Your task to perform on an android device: turn on data saver in the chrome app Image 0: 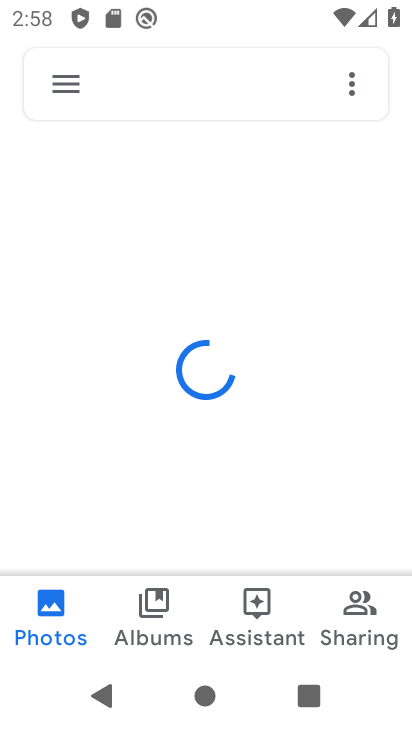
Step 0: press home button
Your task to perform on an android device: turn on data saver in the chrome app Image 1: 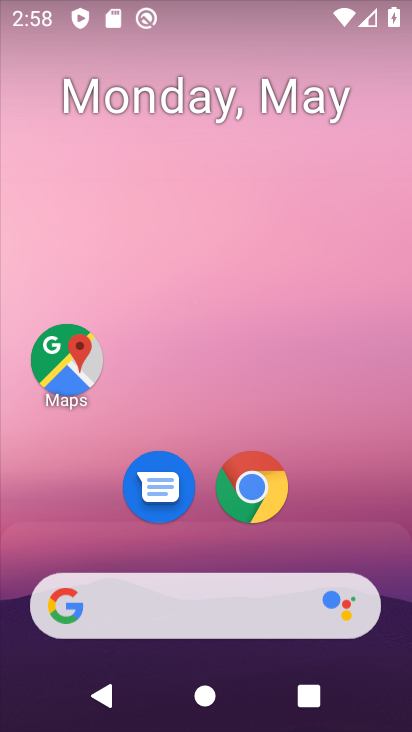
Step 1: drag from (230, 548) to (215, 253)
Your task to perform on an android device: turn on data saver in the chrome app Image 2: 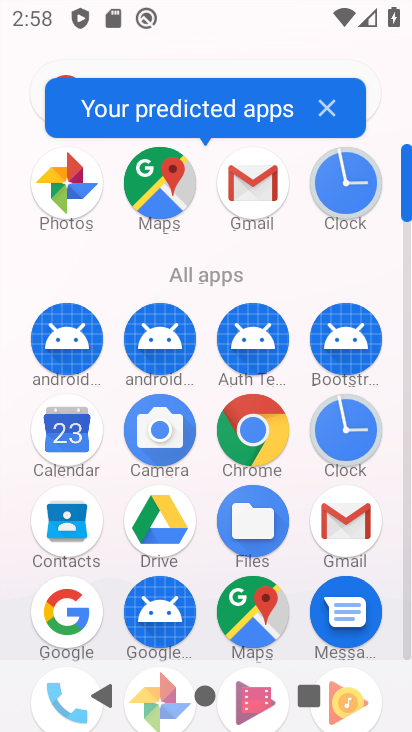
Step 2: click (244, 434)
Your task to perform on an android device: turn on data saver in the chrome app Image 3: 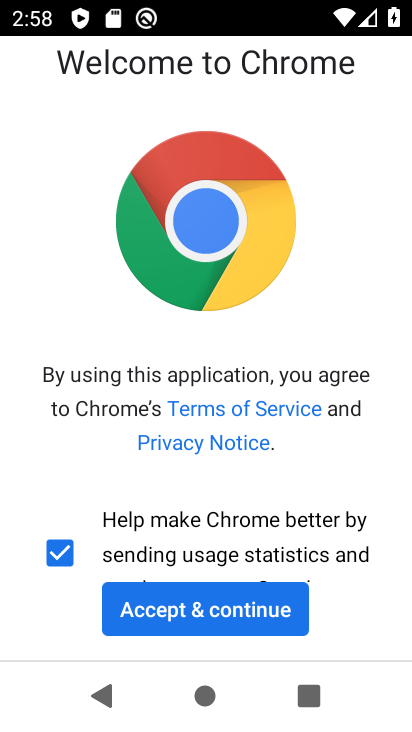
Step 3: click (230, 614)
Your task to perform on an android device: turn on data saver in the chrome app Image 4: 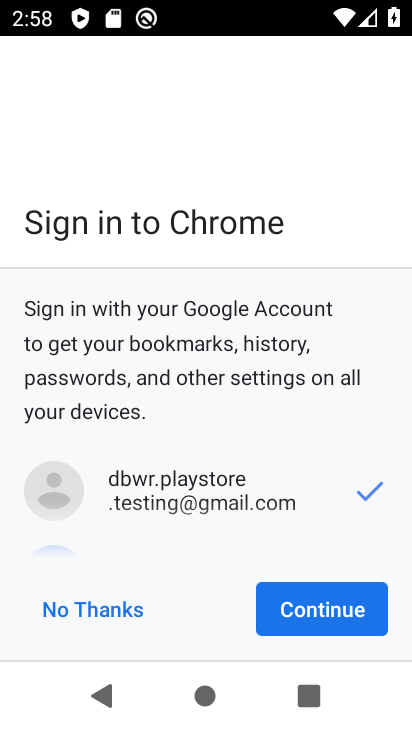
Step 4: click (288, 614)
Your task to perform on an android device: turn on data saver in the chrome app Image 5: 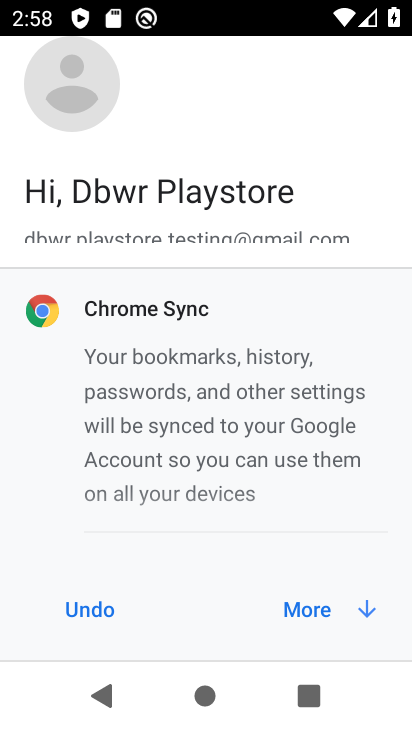
Step 5: click (288, 614)
Your task to perform on an android device: turn on data saver in the chrome app Image 6: 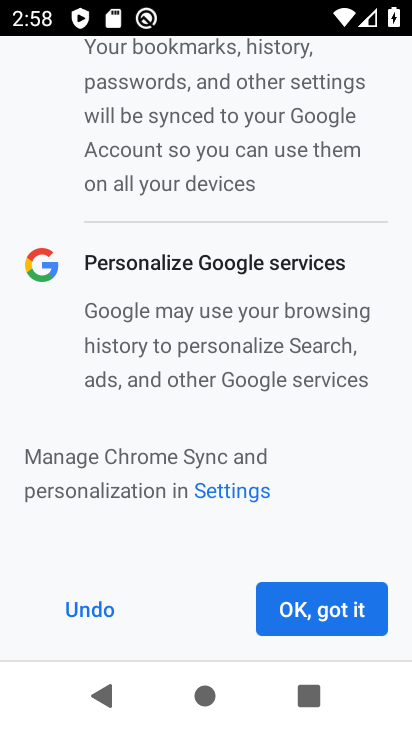
Step 6: click (349, 603)
Your task to perform on an android device: turn on data saver in the chrome app Image 7: 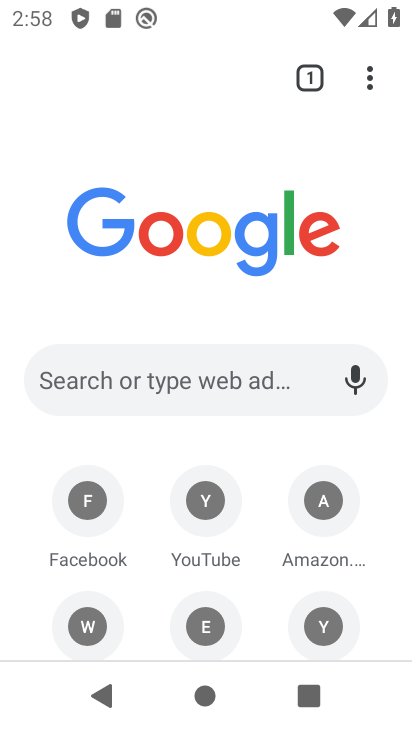
Step 7: click (370, 77)
Your task to perform on an android device: turn on data saver in the chrome app Image 8: 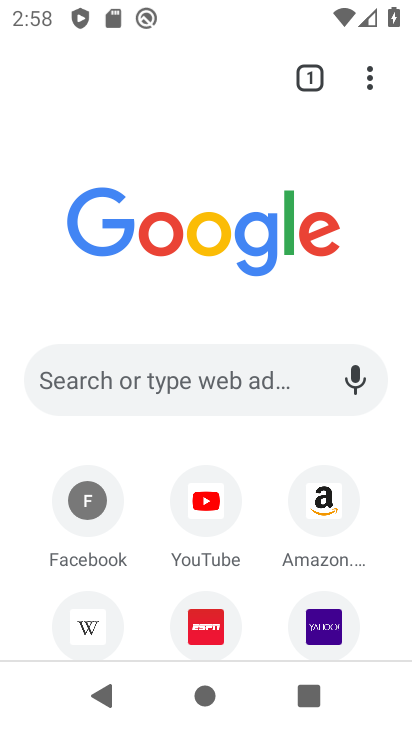
Step 8: click (370, 77)
Your task to perform on an android device: turn on data saver in the chrome app Image 9: 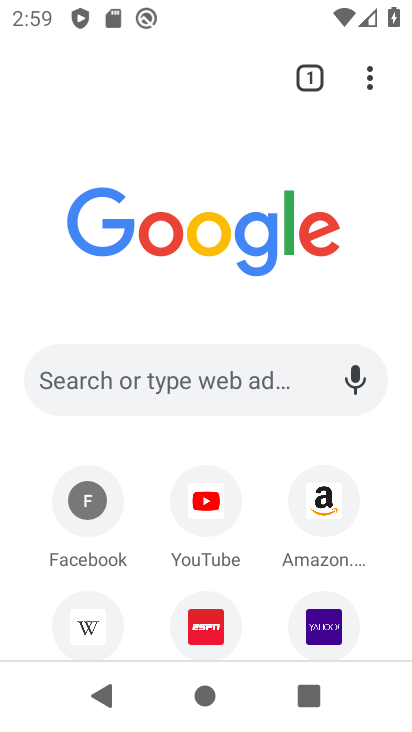
Step 9: click (376, 77)
Your task to perform on an android device: turn on data saver in the chrome app Image 10: 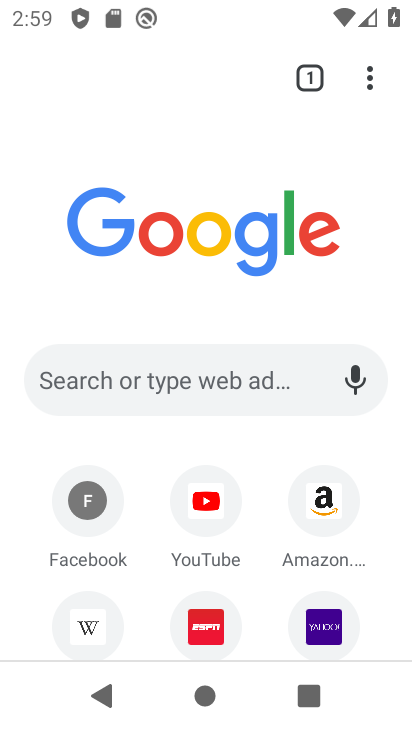
Step 10: click (376, 77)
Your task to perform on an android device: turn on data saver in the chrome app Image 11: 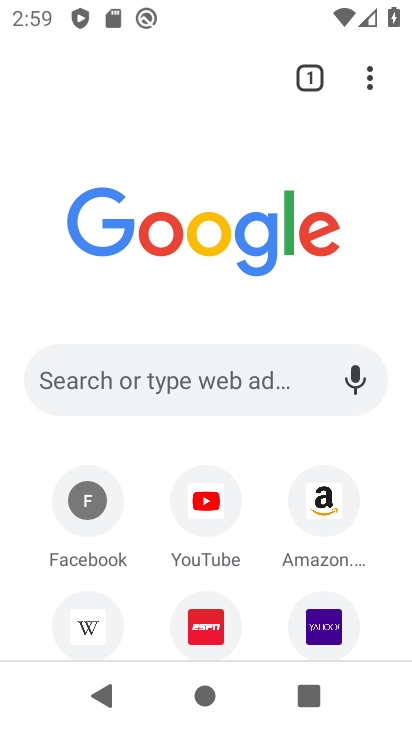
Step 11: click (365, 82)
Your task to perform on an android device: turn on data saver in the chrome app Image 12: 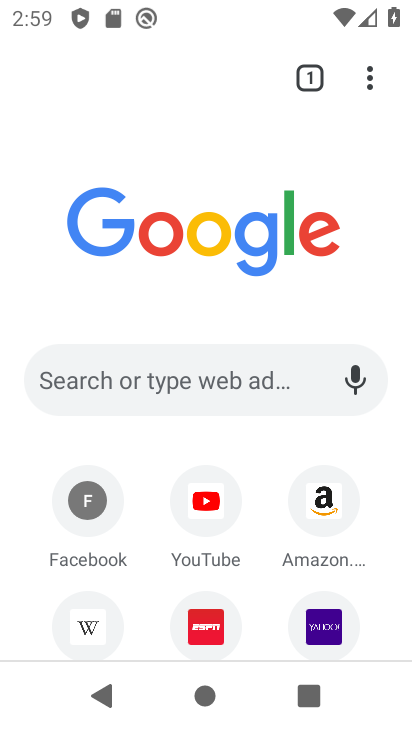
Step 12: click (365, 82)
Your task to perform on an android device: turn on data saver in the chrome app Image 13: 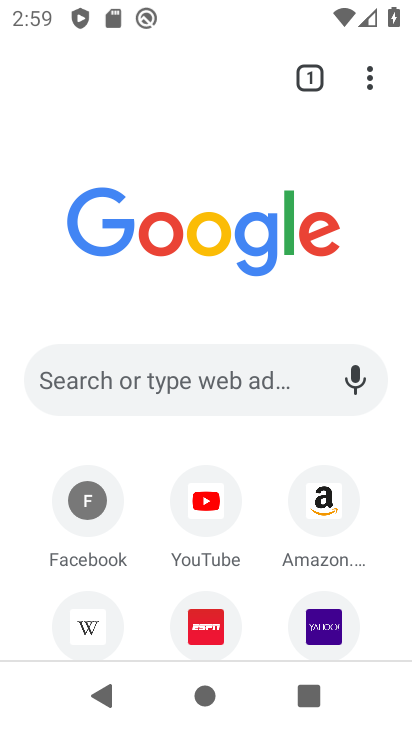
Step 13: click (370, 81)
Your task to perform on an android device: turn on data saver in the chrome app Image 14: 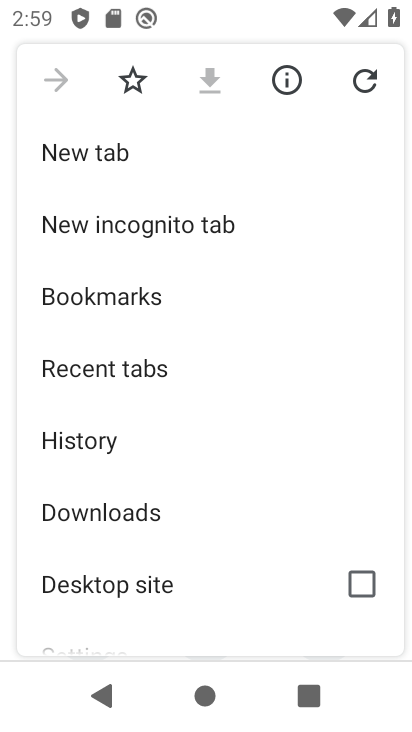
Step 14: drag from (169, 607) to (155, 193)
Your task to perform on an android device: turn on data saver in the chrome app Image 15: 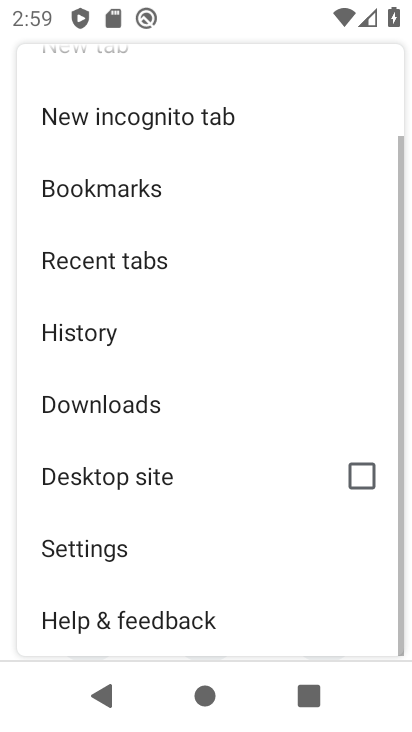
Step 15: click (91, 559)
Your task to perform on an android device: turn on data saver in the chrome app Image 16: 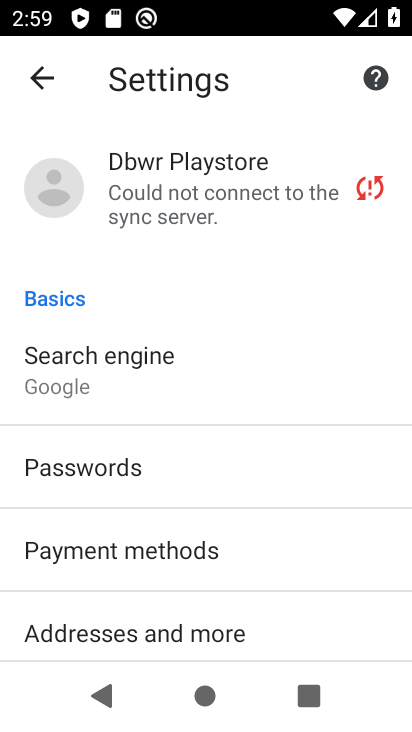
Step 16: drag from (145, 613) to (145, 261)
Your task to perform on an android device: turn on data saver in the chrome app Image 17: 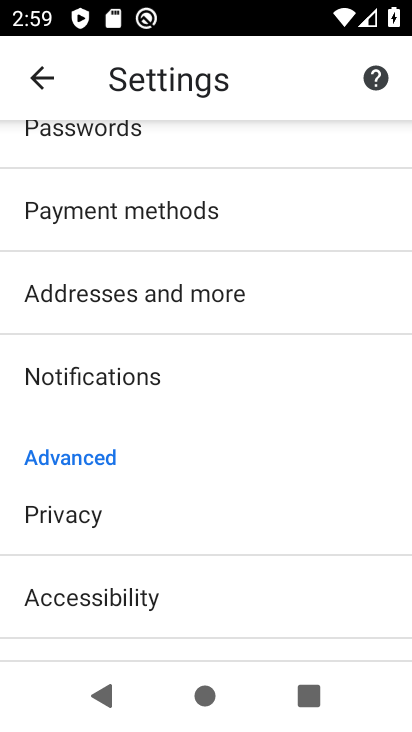
Step 17: drag from (124, 592) to (103, 371)
Your task to perform on an android device: turn on data saver in the chrome app Image 18: 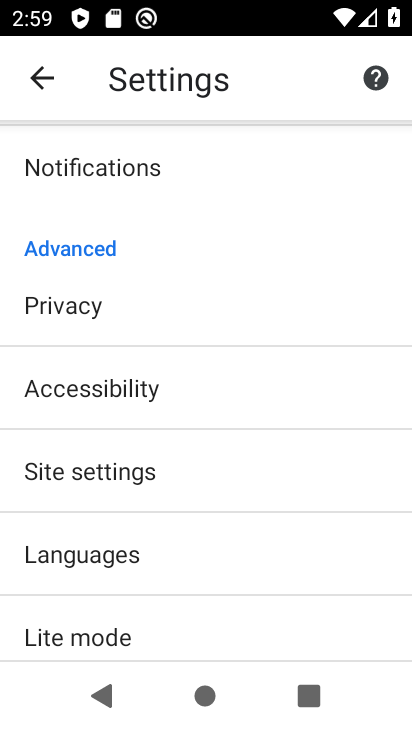
Step 18: click (104, 471)
Your task to perform on an android device: turn on data saver in the chrome app Image 19: 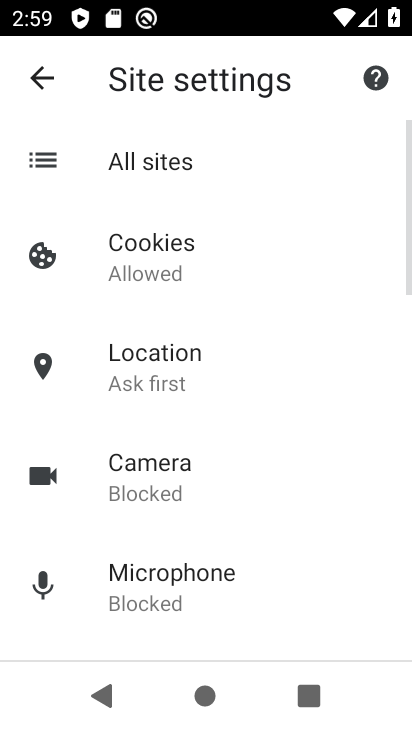
Step 19: click (50, 72)
Your task to perform on an android device: turn on data saver in the chrome app Image 20: 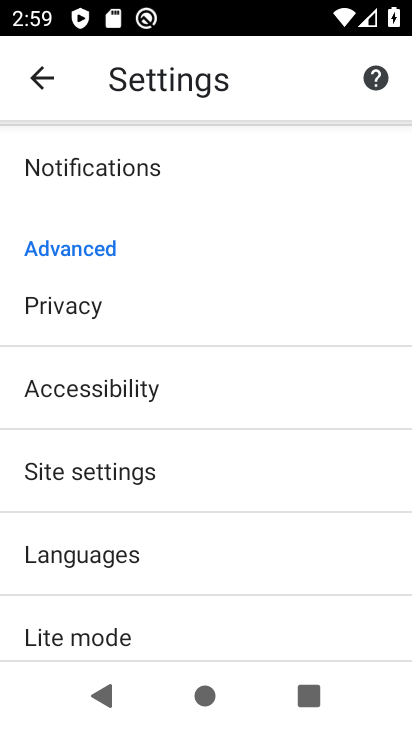
Step 20: click (128, 635)
Your task to perform on an android device: turn on data saver in the chrome app Image 21: 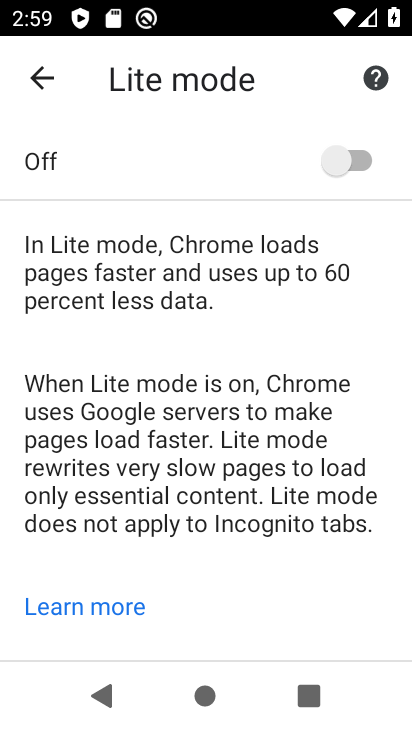
Step 21: click (350, 164)
Your task to perform on an android device: turn on data saver in the chrome app Image 22: 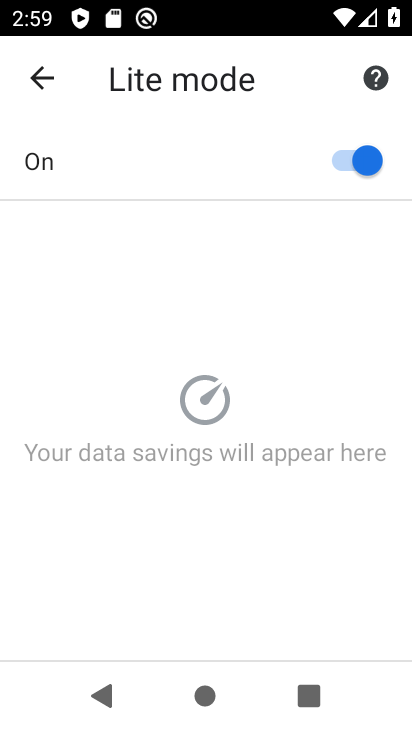
Step 22: task complete